Your task to perform on an android device: Show me productivity apps on the Play Store Image 0: 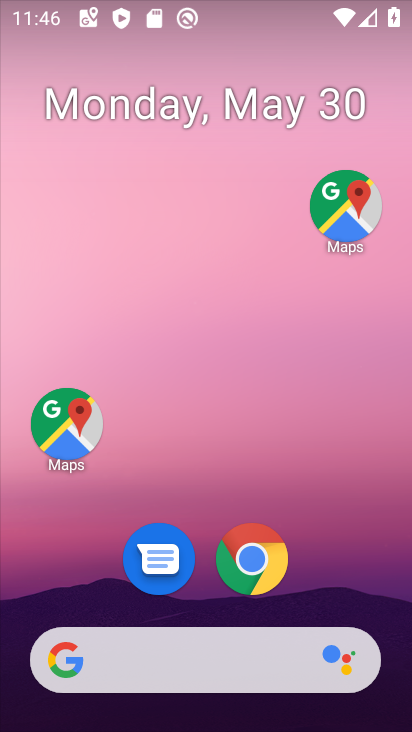
Step 0: drag from (322, 555) to (235, 102)
Your task to perform on an android device: Show me productivity apps on the Play Store Image 1: 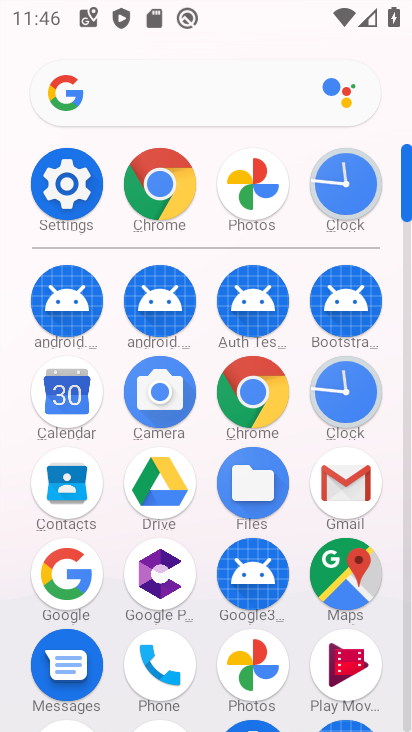
Step 1: drag from (290, 622) to (302, 316)
Your task to perform on an android device: Show me productivity apps on the Play Store Image 2: 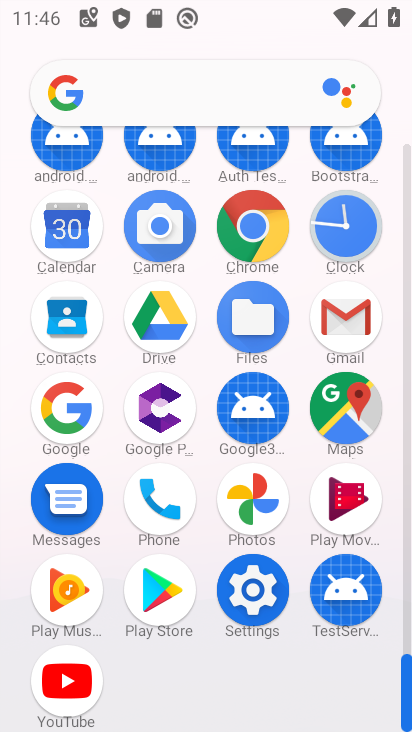
Step 2: click (163, 585)
Your task to perform on an android device: Show me productivity apps on the Play Store Image 3: 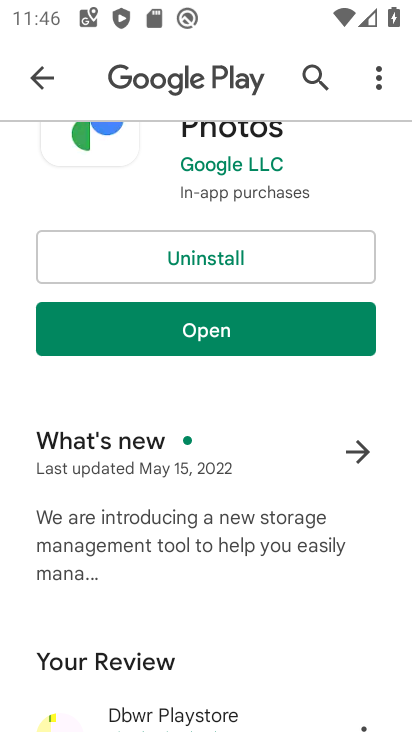
Step 3: click (38, 75)
Your task to perform on an android device: Show me productivity apps on the Play Store Image 4: 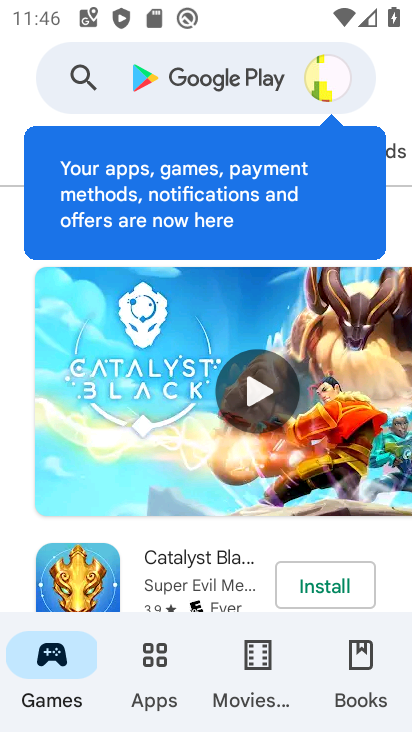
Step 4: click (160, 685)
Your task to perform on an android device: Show me productivity apps on the Play Store Image 5: 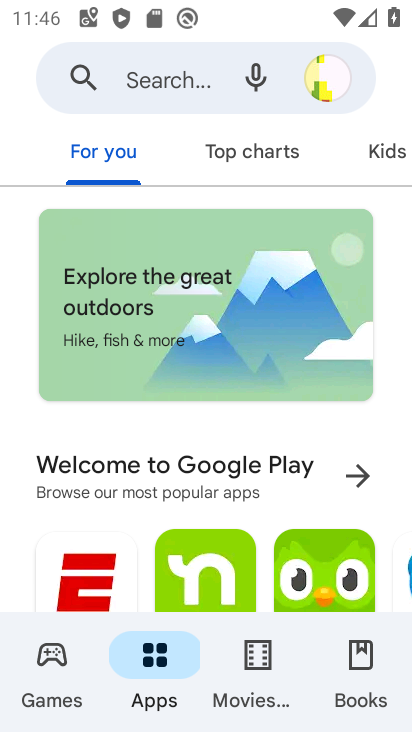
Step 5: drag from (220, 442) to (300, 28)
Your task to perform on an android device: Show me productivity apps on the Play Store Image 6: 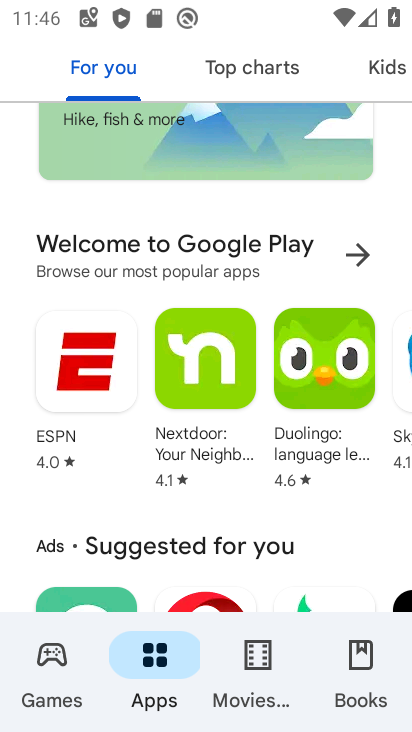
Step 6: drag from (211, 487) to (243, 13)
Your task to perform on an android device: Show me productivity apps on the Play Store Image 7: 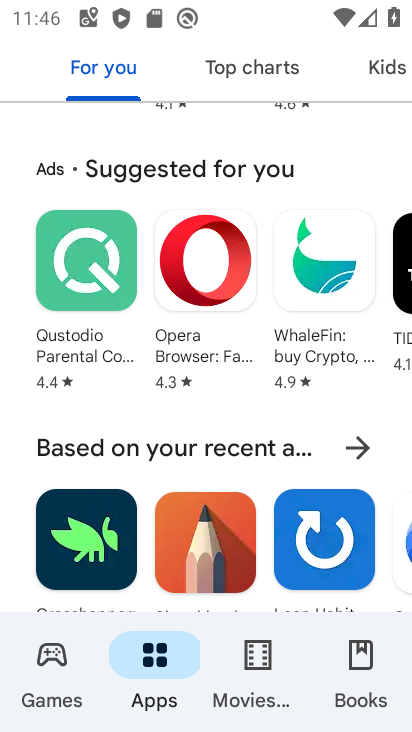
Step 7: drag from (205, 463) to (236, 124)
Your task to perform on an android device: Show me productivity apps on the Play Store Image 8: 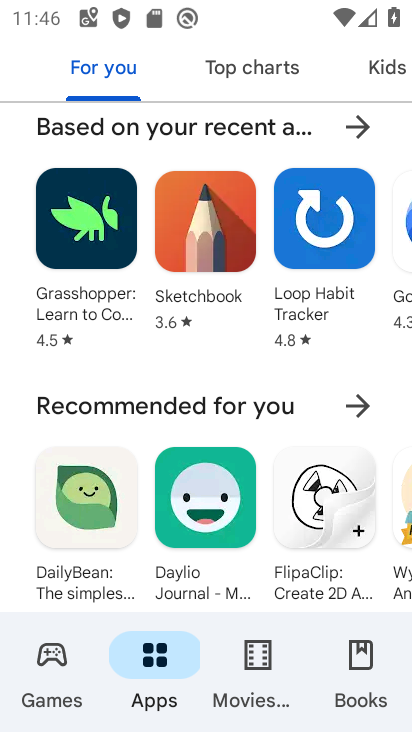
Step 8: drag from (206, 506) to (284, 63)
Your task to perform on an android device: Show me productivity apps on the Play Store Image 9: 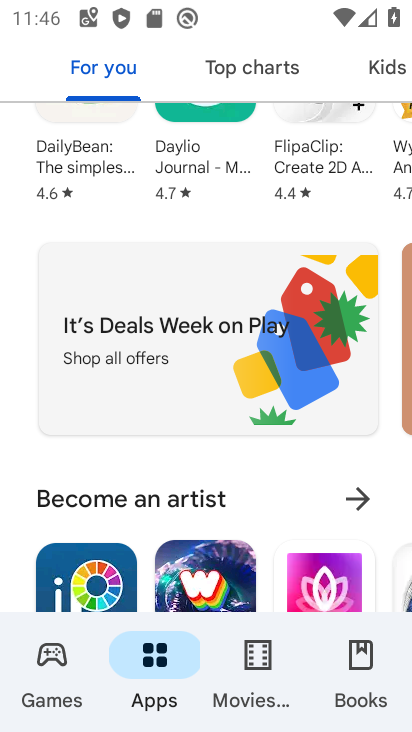
Step 9: drag from (190, 506) to (240, 38)
Your task to perform on an android device: Show me productivity apps on the Play Store Image 10: 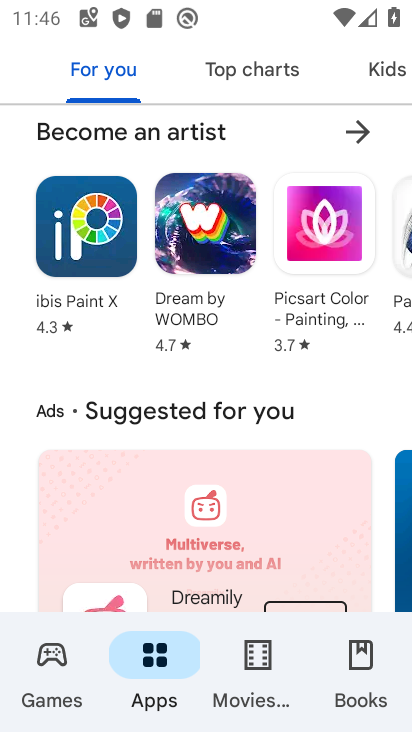
Step 10: drag from (179, 470) to (268, 16)
Your task to perform on an android device: Show me productivity apps on the Play Store Image 11: 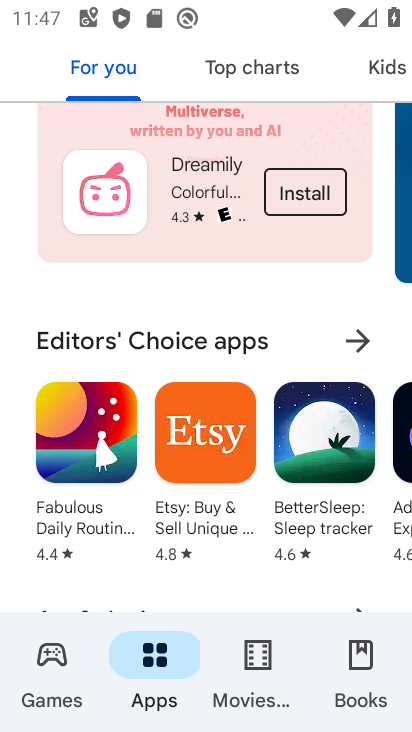
Step 11: drag from (191, 464) to (280, 29)
Your task to perform on an android device: Show me productivity apps on the Play Store Image 12: 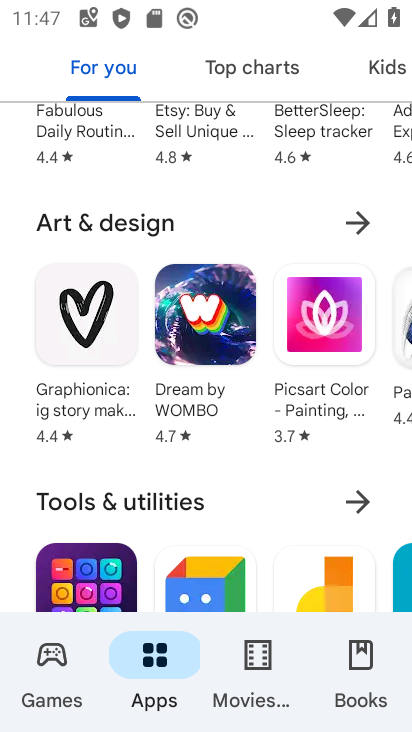
Step 12: drag from (231, 445) to (263, 60)
Your task to perform on an android device: Show me productivity apps on the Play Store Image 13: 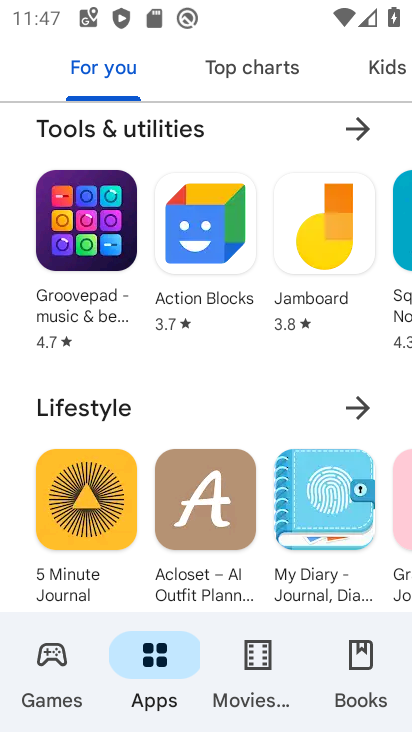
Step 13: drag from (196, 511) to (280, 137)
Your task to perform on an android device: Show me productivity apps on the Play Store Image 14: 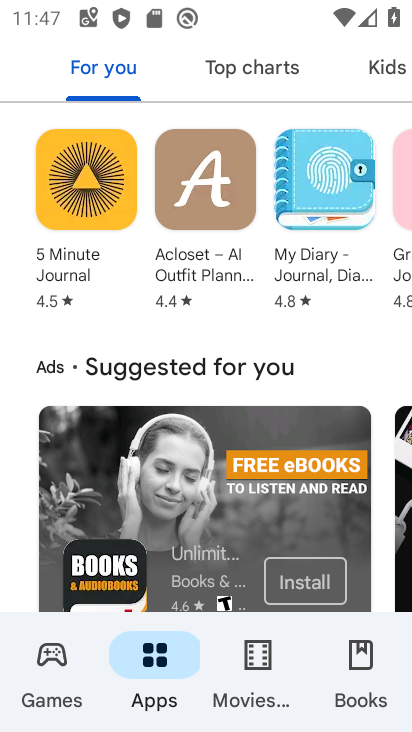
Step 14: drag from (191, 498) to (242, 215)
Your task to perform on an android device: Show me productivity apps on the Play Store Image 15: 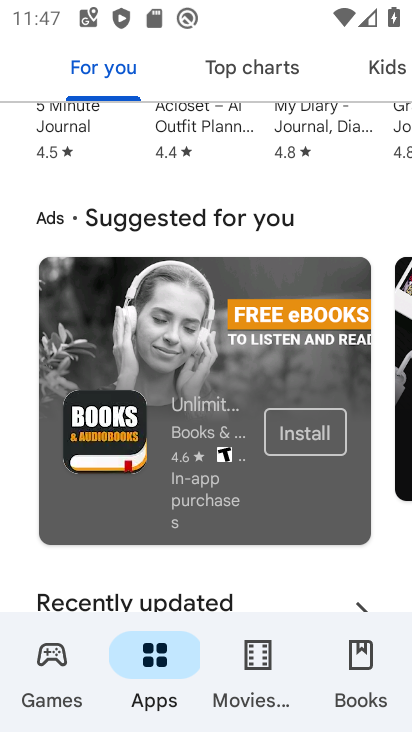
Step 15: drag from (193, 471) to (233, 215)
Your task to perform on an android device: Show me productivity apps on the Play Store Image 16: 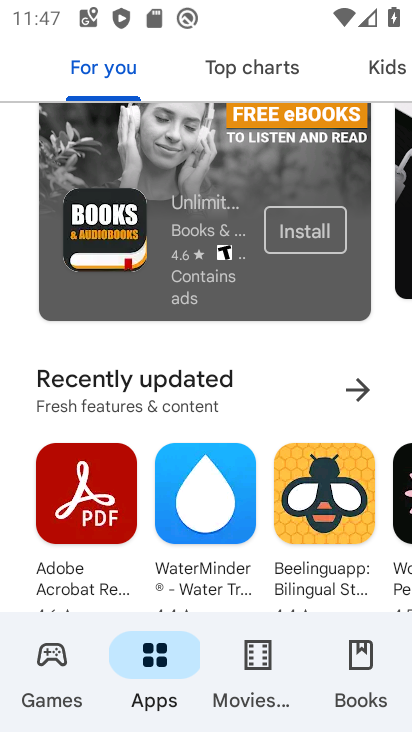
Step 16: drag from (191, 493) to (255, 219)
Your task to perform on an android device: Show me productivity apps on the Play Store Image 17: 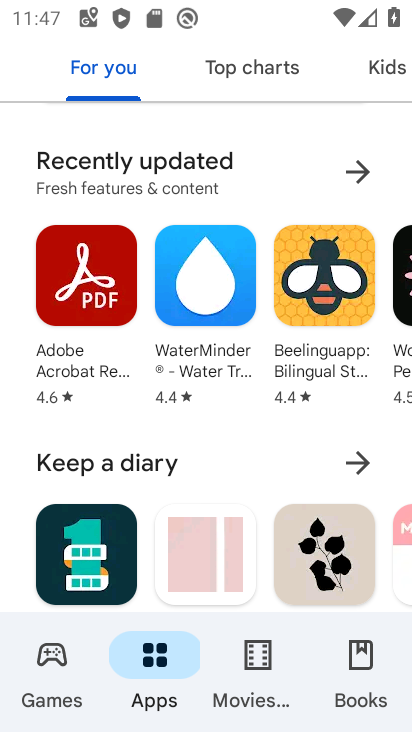
Step 17: drag from (179, 490) to (243, 292)
Your task to perform on an android device: Show me productivity apps on the Play Store Image 18: 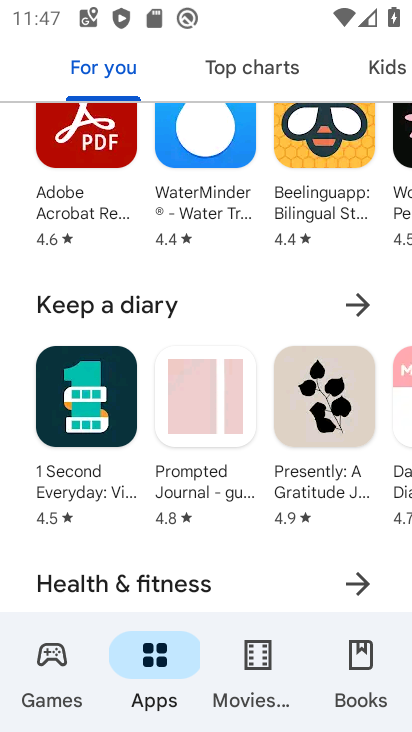
Step 18: drag from (201, 520) to (241, 196)
Your task to perform on an android device: Show me productivity apps on the Play Store Image 19: 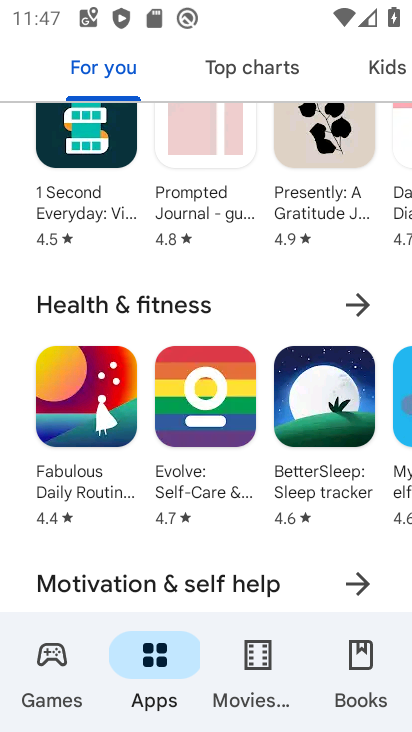
Step 19: drag from (209, 534) to (237, 202)
Your task to perform on an android device: Show me productivity apps on the Play Store Image 20: 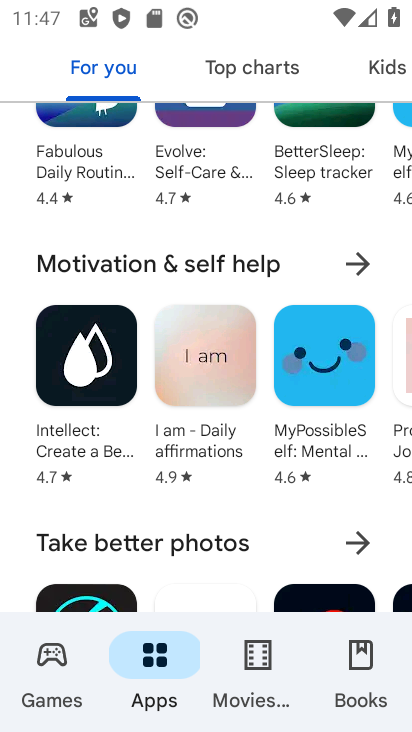
Step 20: drag from (192, 530) to (249, 249)
Your task to perform on an android device: Show me productivity apps on the Play Store Image 21: 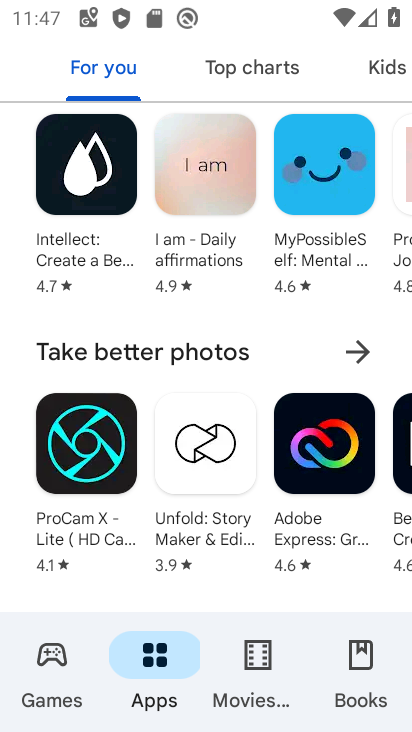
Step 21: click (250, 246)
Your task to perform on an android device: Show me productivity apps on the Play Store Image 22: 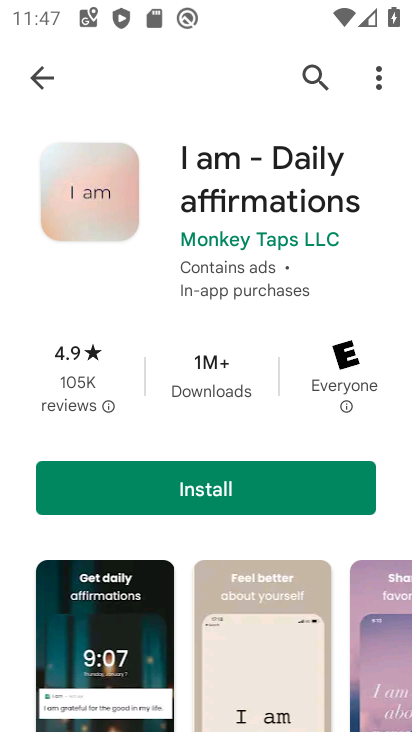
Step 22: click (41, 82)
Your task to perform on an android device: Show me productivity apps on the Play Store Image 23: 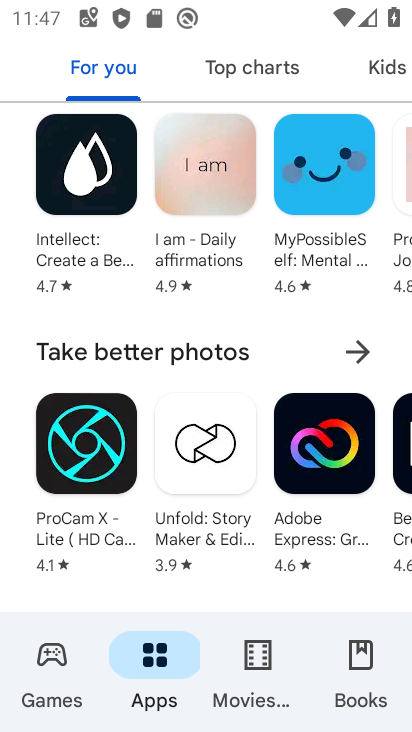
Step 23: task complete